Your task to perform on an android device: toggle wifi Image 0: 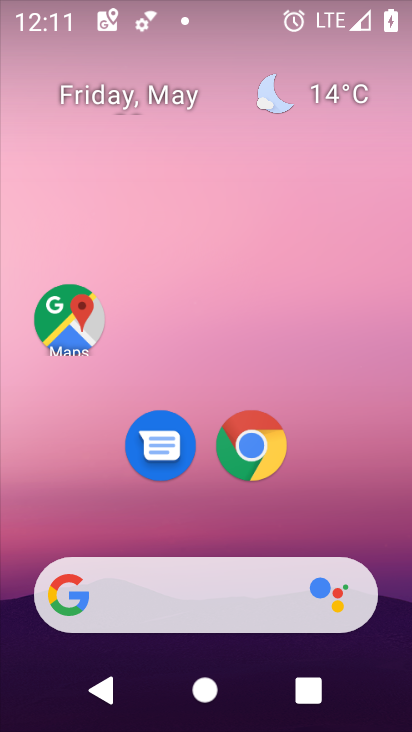
Step 0: drag from (261, 428) to (263, 244)
Your task to perform on an android device: toggle wifi Image 1: 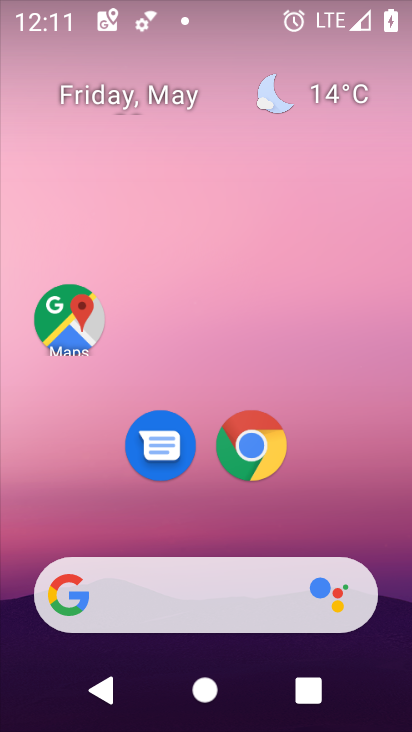
Step 1: drag from (304, 398) to (307, 471)
Your task to perform on an android device: toggle wifi Image 2: 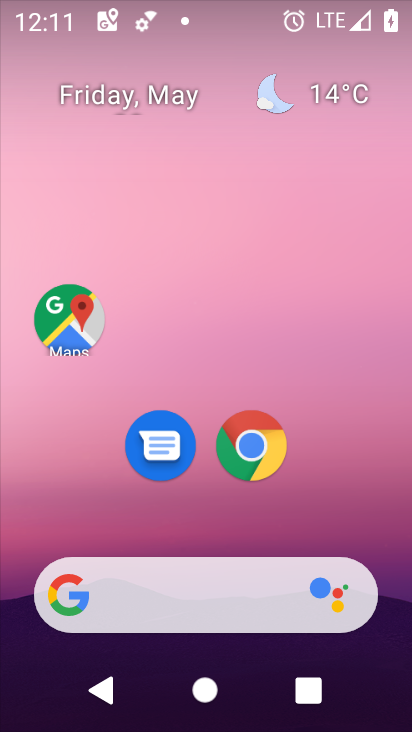
Step 2: drag from (243, 557) to (240, 155)
Your task to perform on an android device: toggle wifi Image 3: 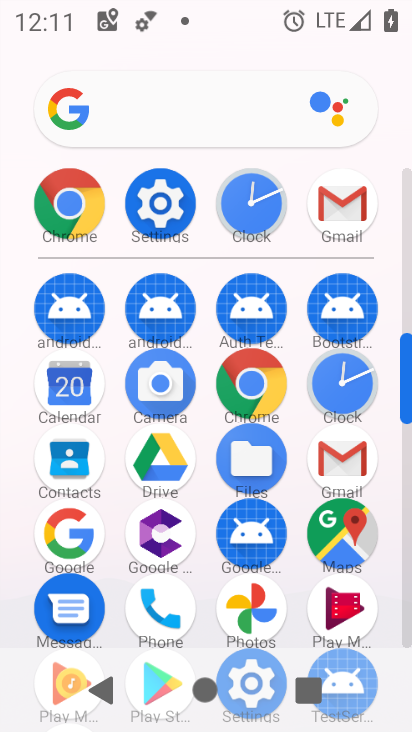
Step 3: click (167, 198)
Your task to perform on an android device: toggle wifi Image 4: 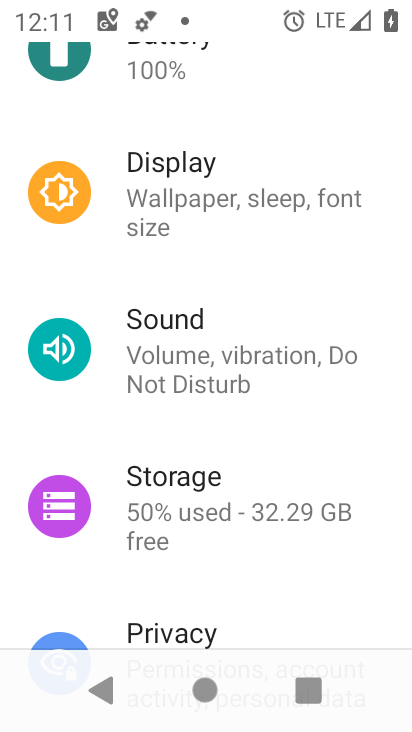
Step 4: drag from (220, 174) to (283, 731)
Your task to perform on an android device: toggle wifi Image 5: 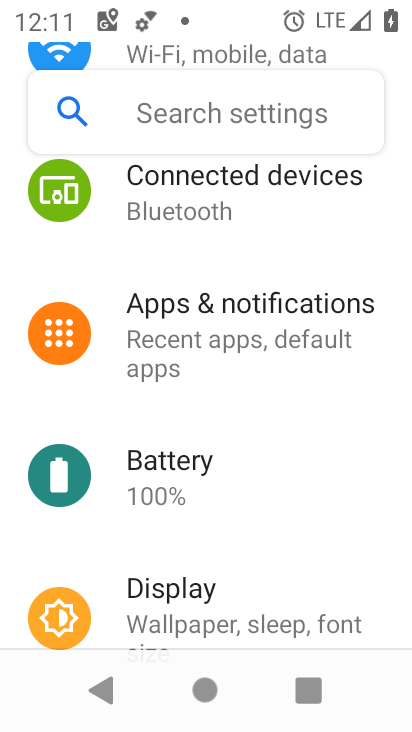
Step 5: drag from (247, 297) to (292, 730)
Your task to perform on an android device: toggle wifi Image 6: 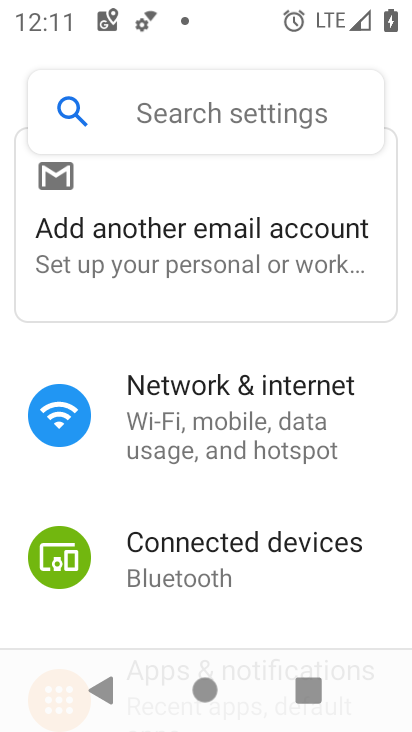
Step 6: click (271, 426)
Your task to perform on an android device: toggle wifi Image 7: 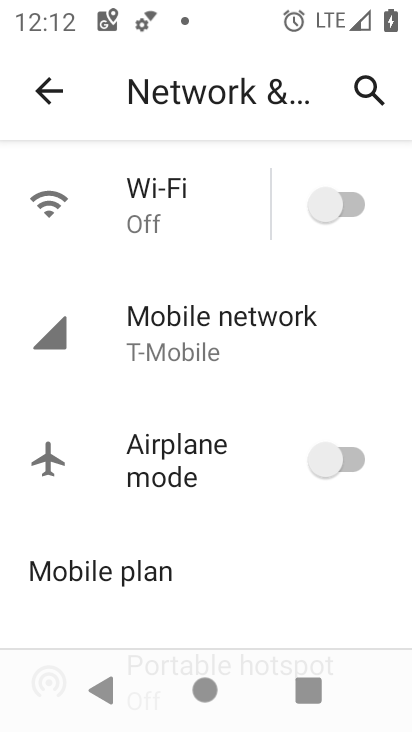
Step 7: click (323, 216)
Your task to perform on an android device: toggle wifi Image 8: 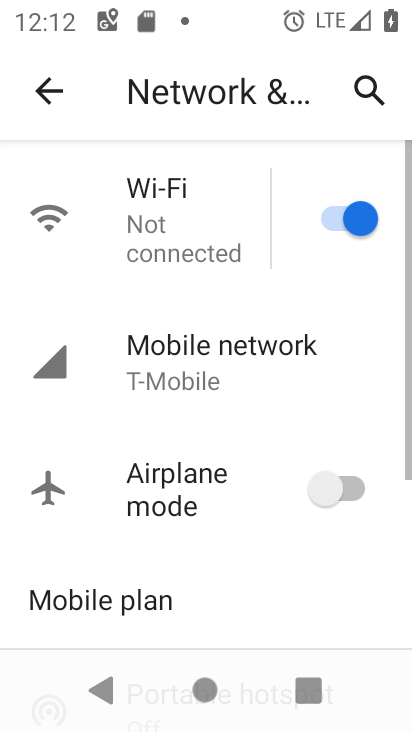
Step 8: task complete